Your task to perform on an android device: turn on translation in the chrome app Image 0: 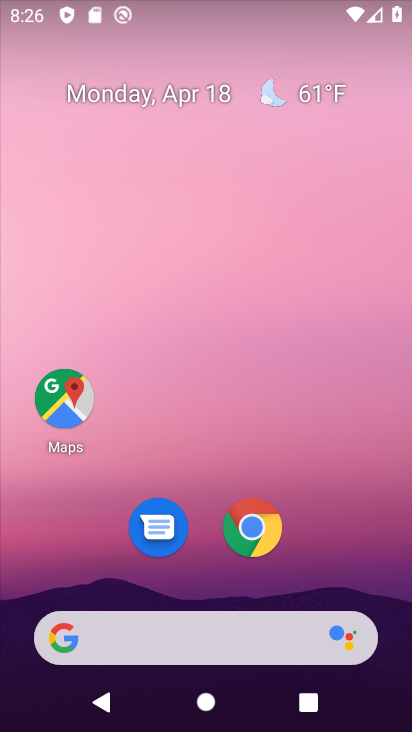
Step 0: click (254, 548)
Your task to perform on an android device: turn on translation in the chrome app Image 1: 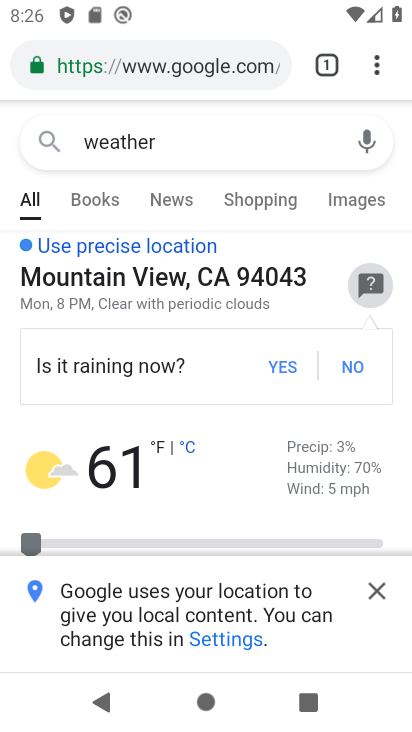
Step 1: click (385, 51)
Your task to perform on an android device: turn on translation in the chrome app Image 2: 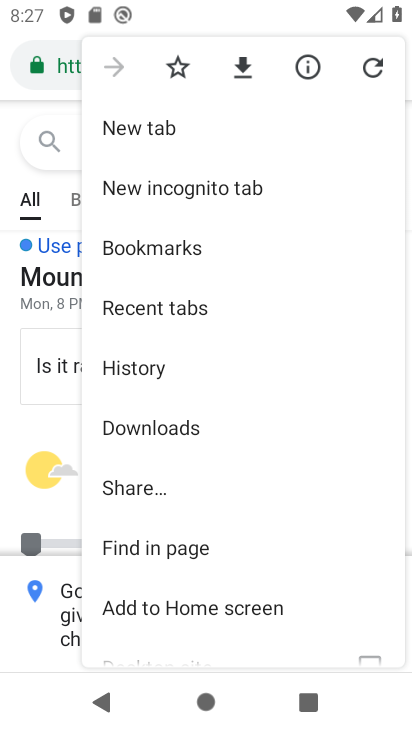
Step 2: drag from (192, 616) to (297, 11)
Your task to perform on an android device: turn on translation in the chrome app Image 3: 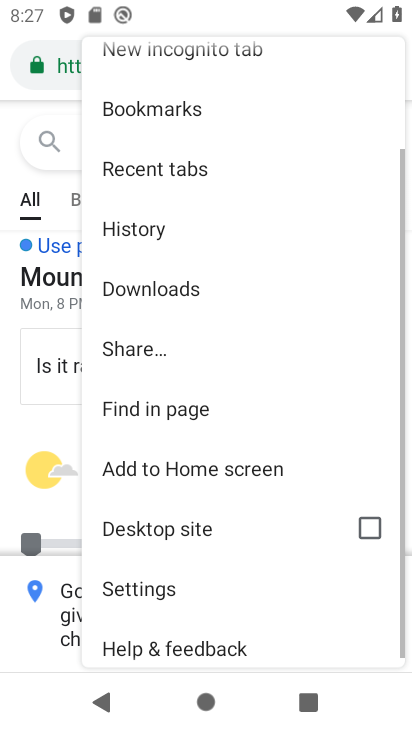
Step 3: click (171, 566)
Your task to perform on an android device: turn on translation in the chrome app Image 4: 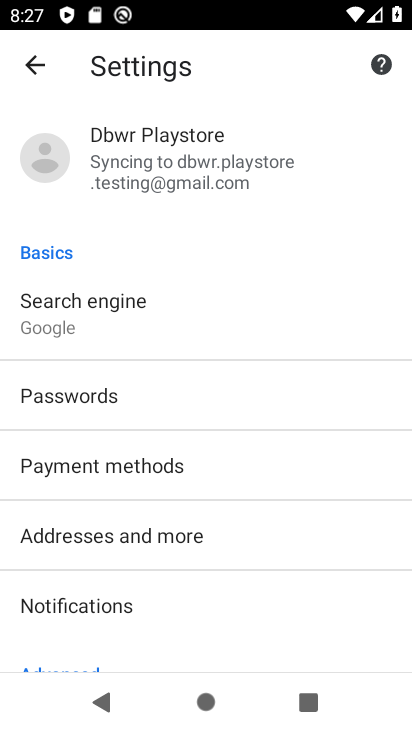
Step 4: drag from (147, 649) to (294, 7)
Your task to perform on an android device: turn on translation in the chrome app Image 5: 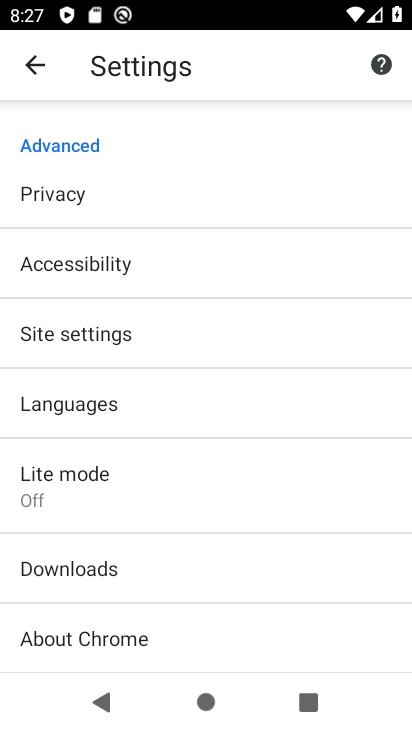
Step 5: click (102, 392)
Your task to perform on an android device: turn on translation in the chrome app Image 6: 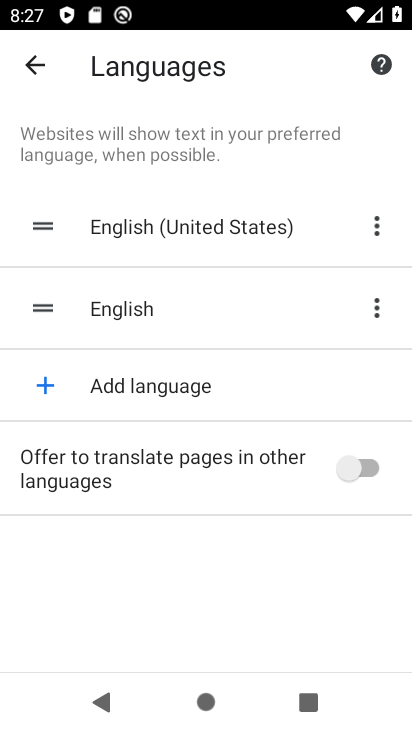
Step 6: click (369, 472)
Your task to perform on an android device: turn on translation in the chrome app Image 7: 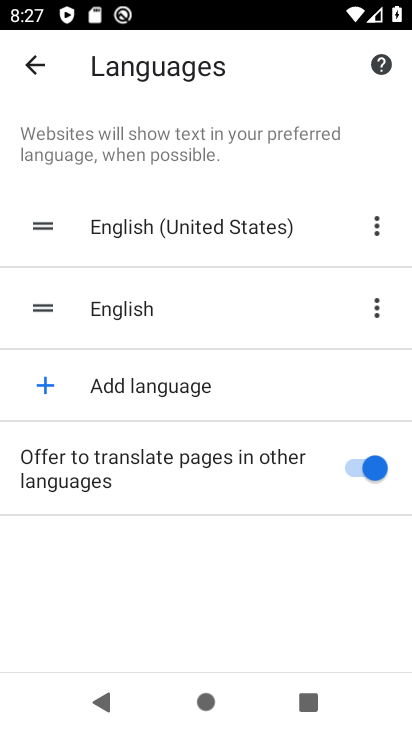
Step 7: task complete